Your task to perform on an android device: open chrome privacy settings Image 0: 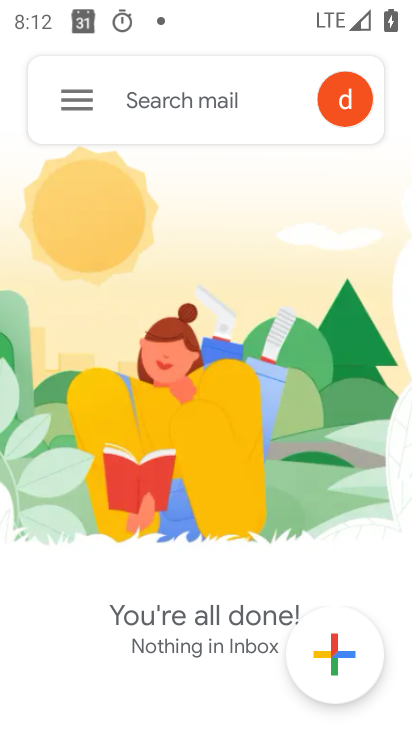
Step 0: press home button
Your task to perform on an android device: open chrome privacy settings Image 1: 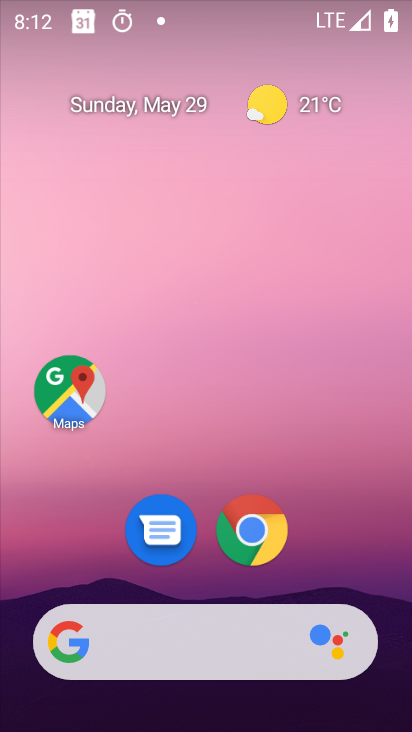
Step 1: drag from (241, 699) to (343, 56)
Your task to perform on an android device: open chrome privacy settings Image 2: 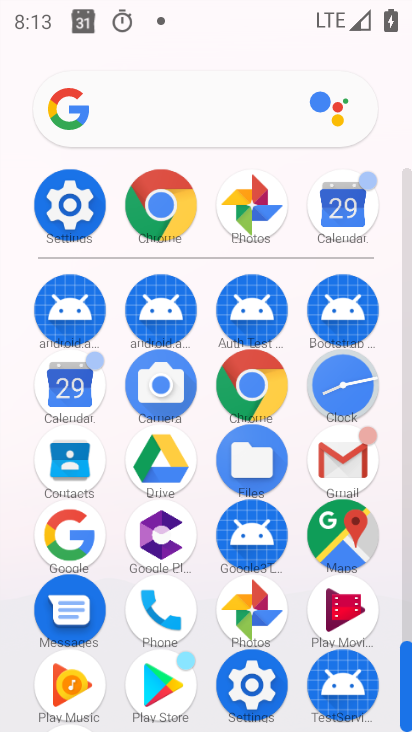
Step 2: click (41, 215)
Your task to perform on an android device: open chrome privacy settings Image 3: 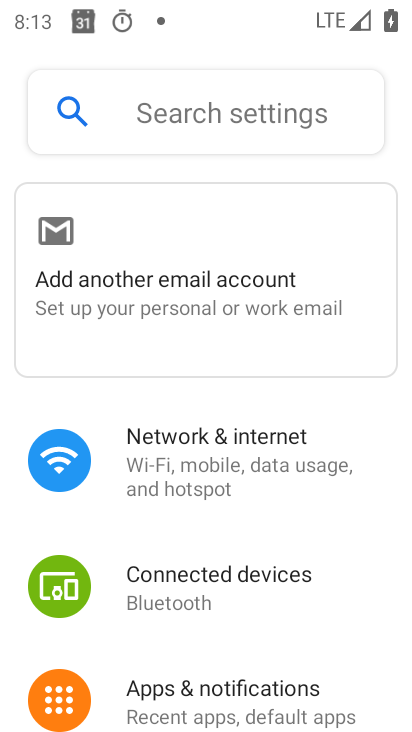
Step 3: click (201, 122)
Your task to perform on an android device: open chrome privacy settings Image 4: 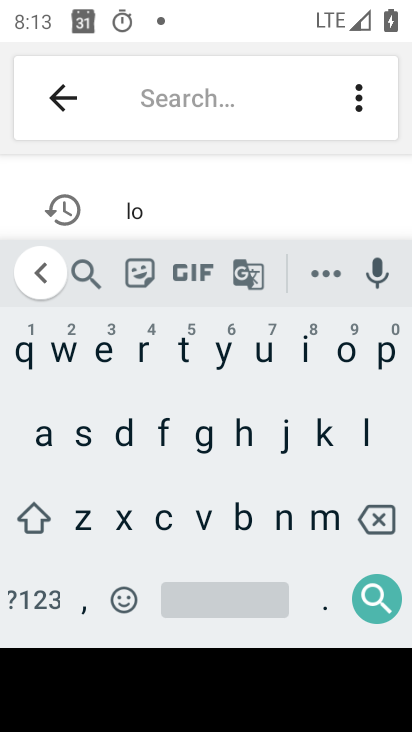
Step 4: click (388, 355)
Your task to perform on an android device: open chrome privacy settings Image 5: 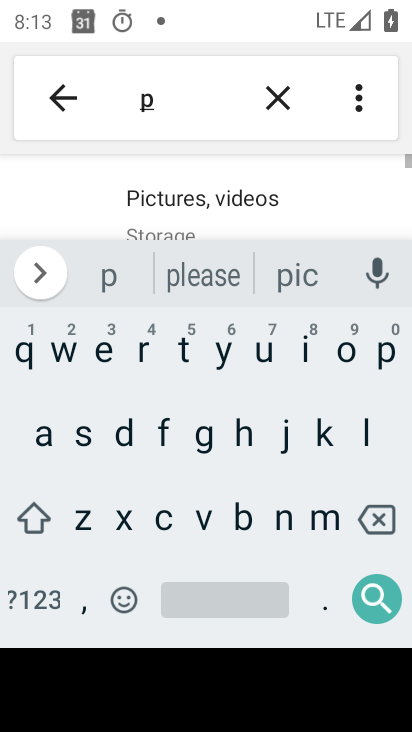
Step 5: click (138, 357)
Your task to perform on an android device: open chrome privacy settings Image 6: 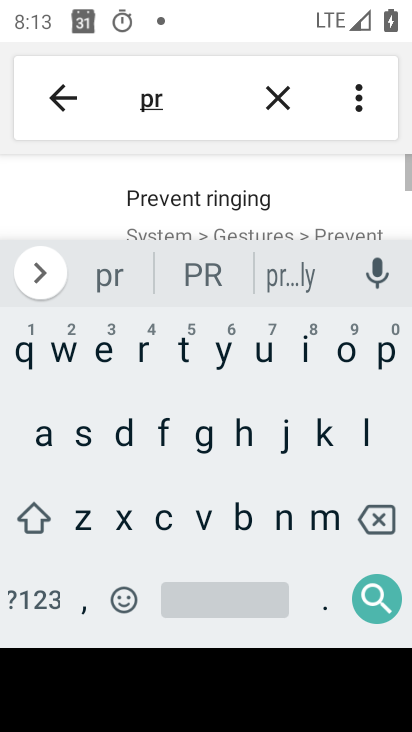
Step 6: click (298, 357)
Your task to perform on an android device: open chrome privacy settings Image 7: 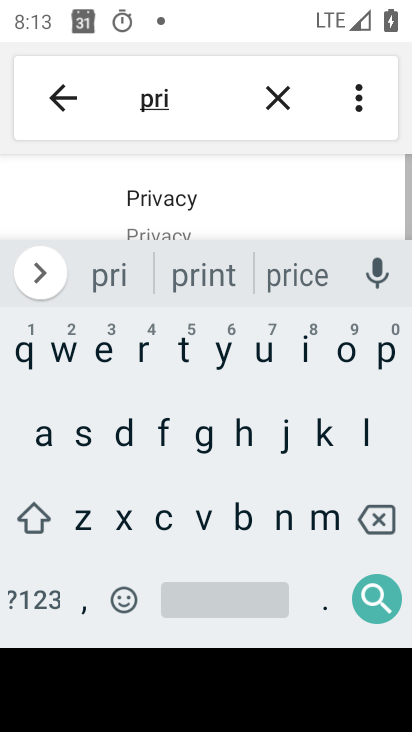
Step 7: click (153, 203)
Your task to perform on an android device: open chrome privacy settings Image 8: 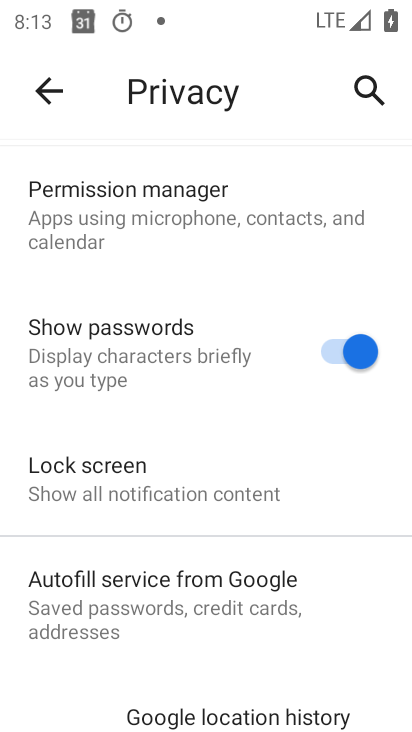
Step 8: task complete